Your task to perform on an android device: open app "Walmart Shopping & Grocery" Image 0: 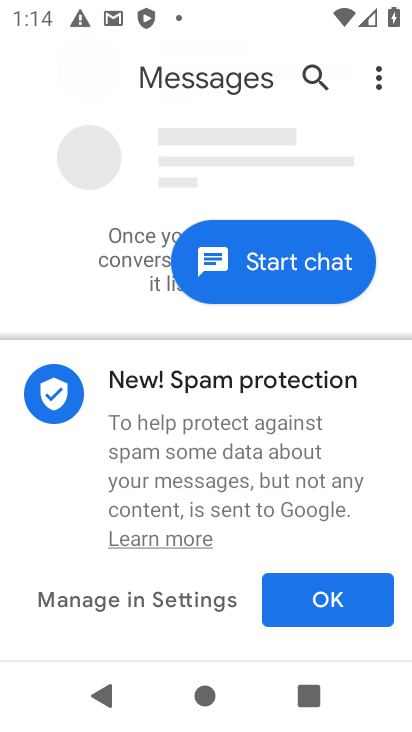
Step 0: press home button
Your task to perform on an android device: open app "Walmart Shopping & Grocery" Image 1: 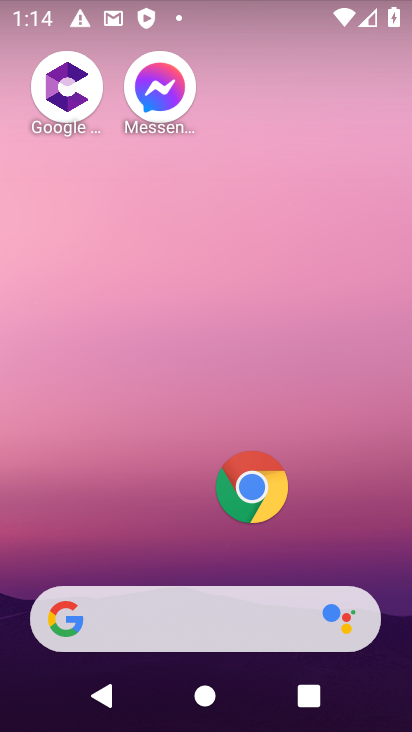
Step 1: drag from (159, 527) to (164, 158)
Your task to perform on an android device: open app "Walmart Shopping & Grocery" Image 2: 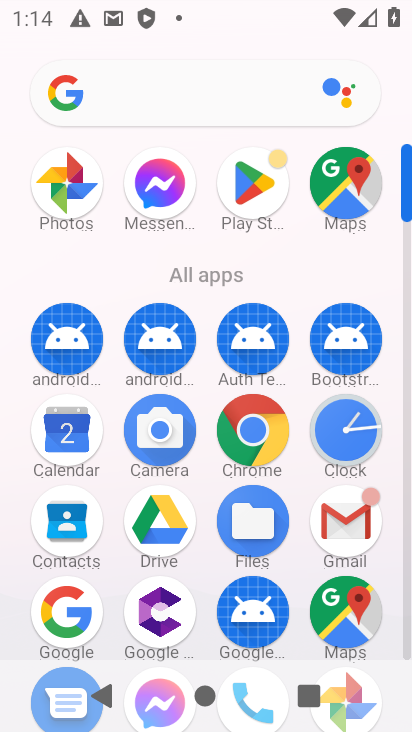
Step 2: click (251, 186)
Your task to perform on an android device: open app "Walmart Shopping & Grocery" Image 3: 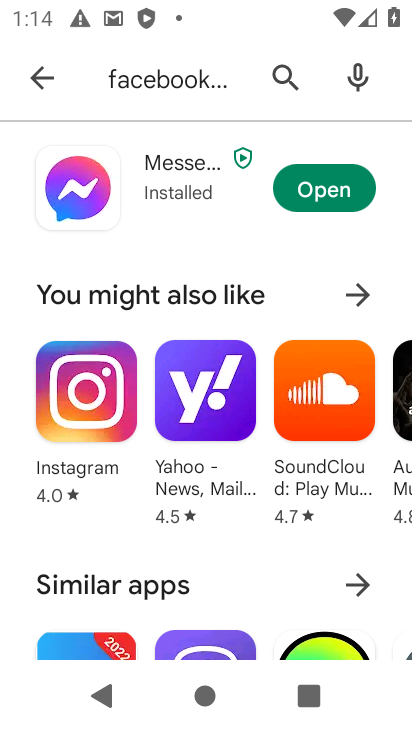
Step 3: click (325, 78)
Your task to perform on an android device: open app "Walmart Shopping & Grocery" Image 4: 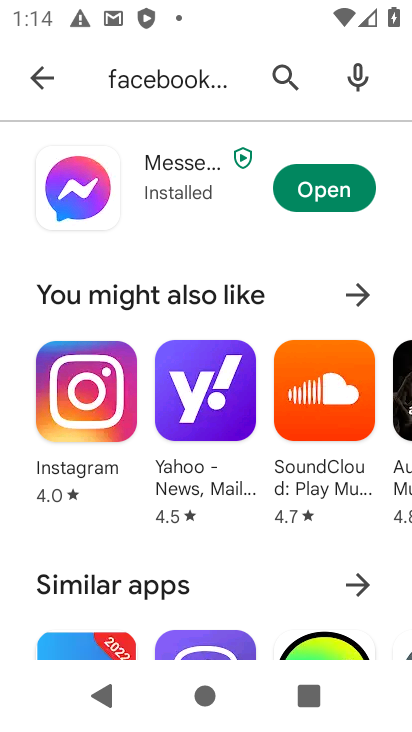
Step 4: click (293, 73)
Your task to perform on an android device: open app "Walmart Shopping & Grocery" Image 5: 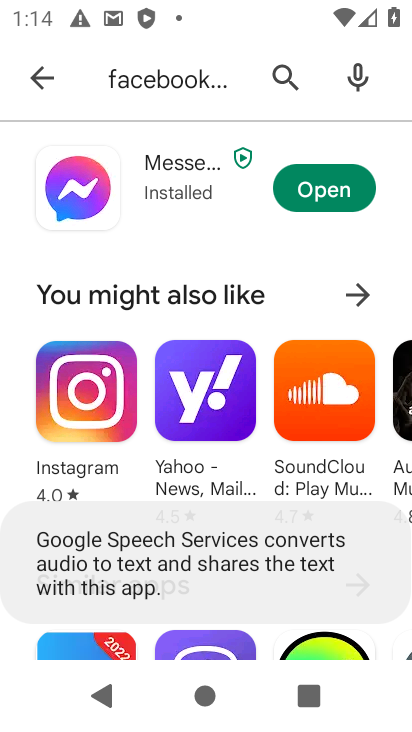
Step 5: click (284, 81)
Your task to perform on an android device: open app "Walmart Shopping & Grocery" Image 6: 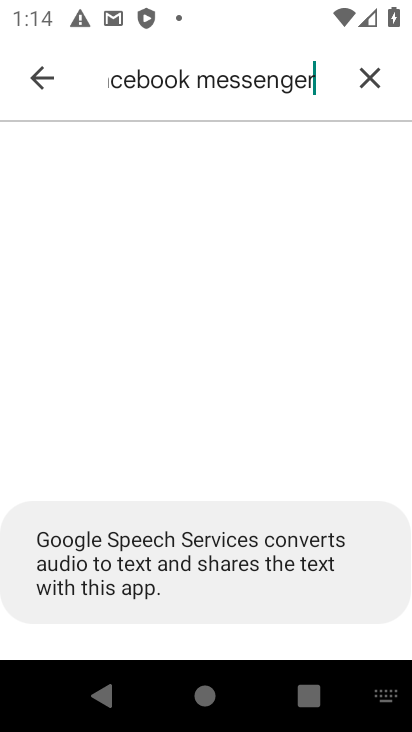
Step 6: click (363, 82)
Your task to perform on an android device: open app "Walmart Shopping & Grocery" Image 7: 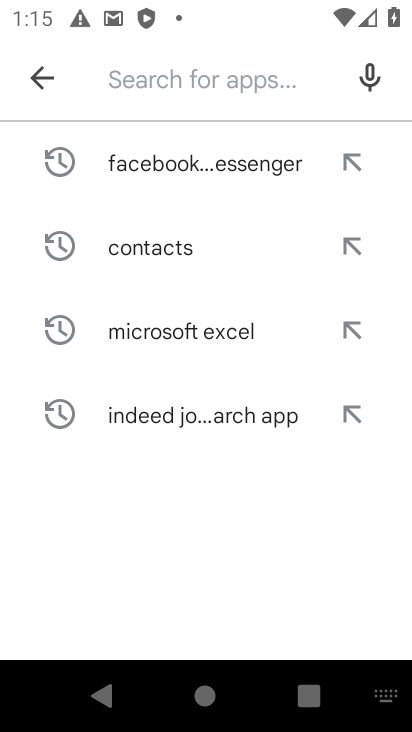
Step 7: type "Walmart Shopping & Grocery"
Your task to perform on an android device: open app "Walmart Shopping & Grocery" Image 8: 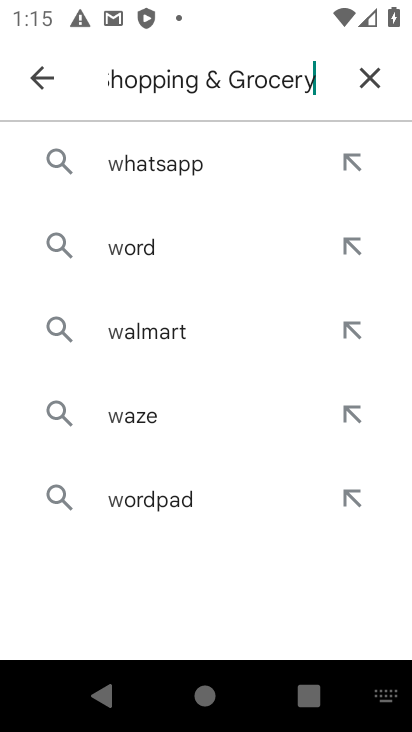
Step 8: type ""
Your task to perform on an android device: open app "Walmart Shopping & Grocery" Image 9: 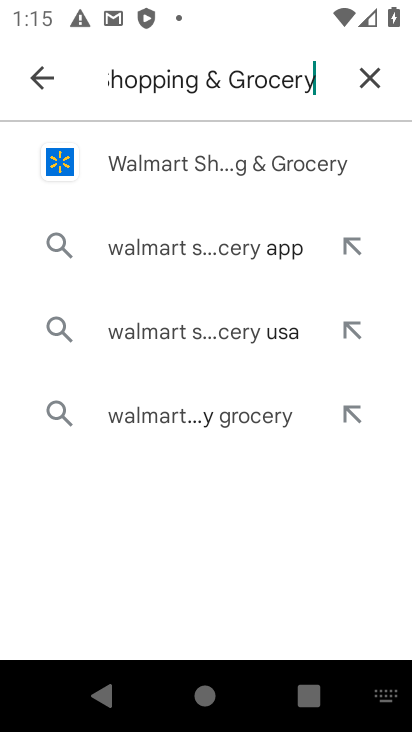
Step 9: click (182, 178)
Your task to perform on an android device: open app "Walmart Shopping & Grocery" Image 10: 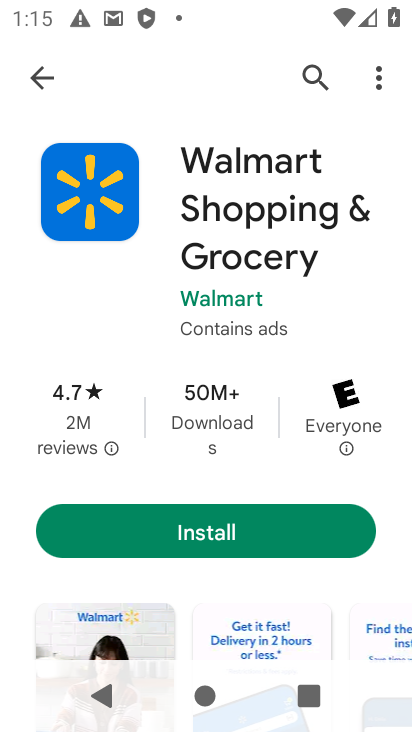
Step 10: task complete